Your task to perform on an android device: Go to Google maps Image 0: 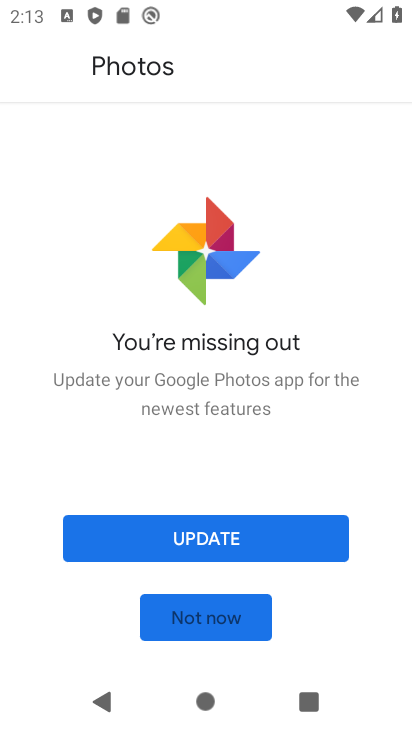
Step 0: press home button
Your task to perform on an android device: Go to Google maps Image 1: 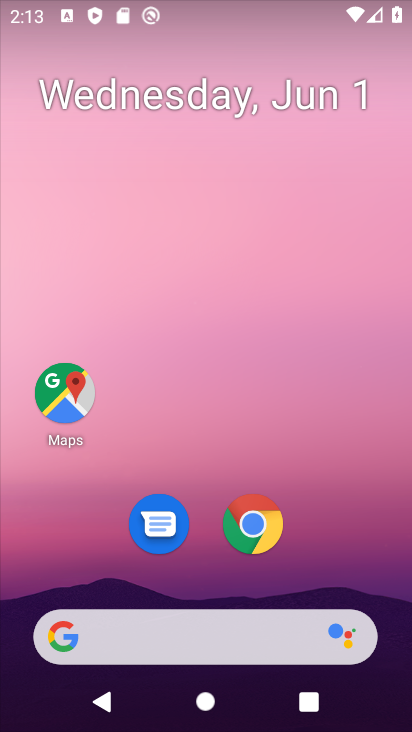
Step 1: click (60, 391)
Your task to perform on an android device: Go to Google maps Image 2: 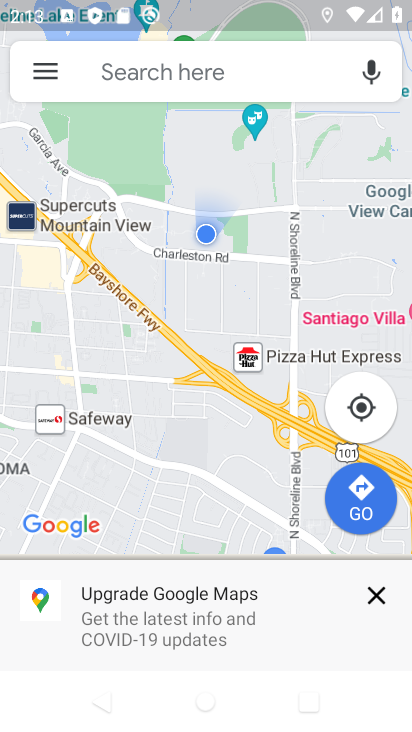
Step 2: task complete